Your task to perform on an android device: change the clock display to digital Image 0: 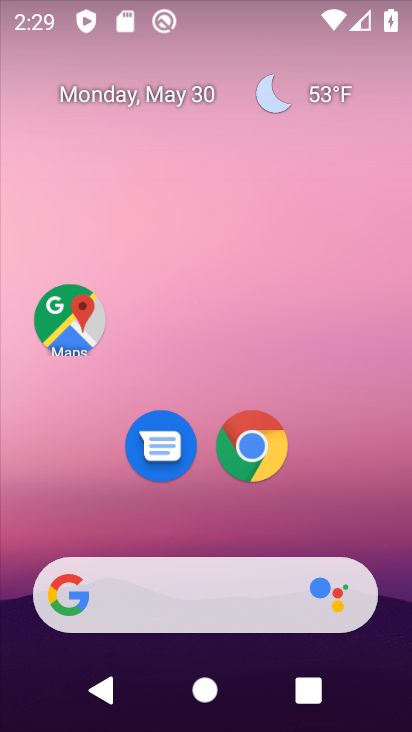
Step 0: drag from (323, 478) to (261, 103)
Your task to perform on an android device: change the clock display to digital Image 1: 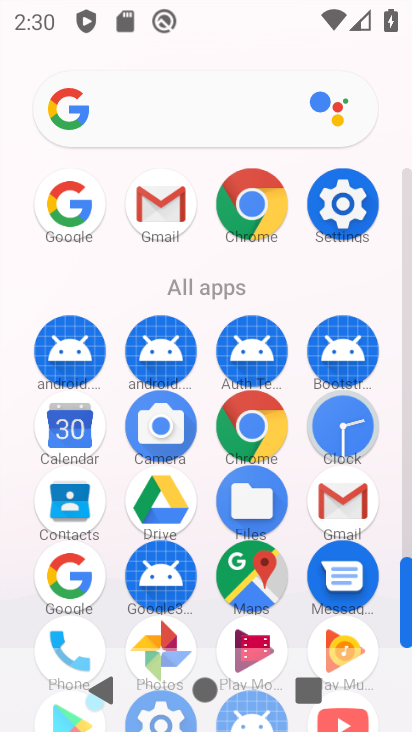
Step 1: click (343, 424)
Your task to perform on an android device: change the clock display to digital Image 2: 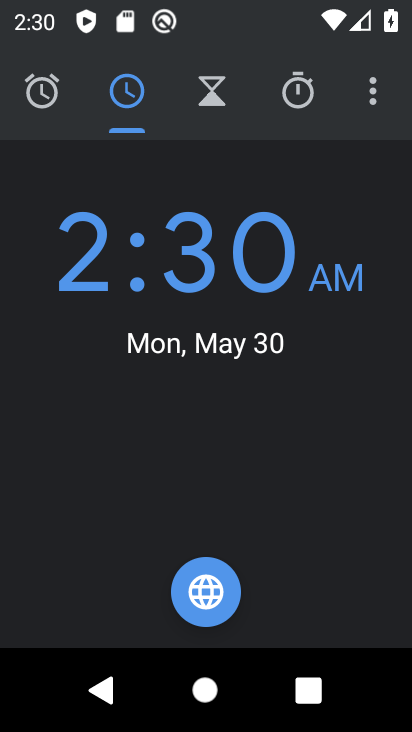
Step 2: click (372, 92)
Your task to perform on an android device: change the clock display to digital Image 3: 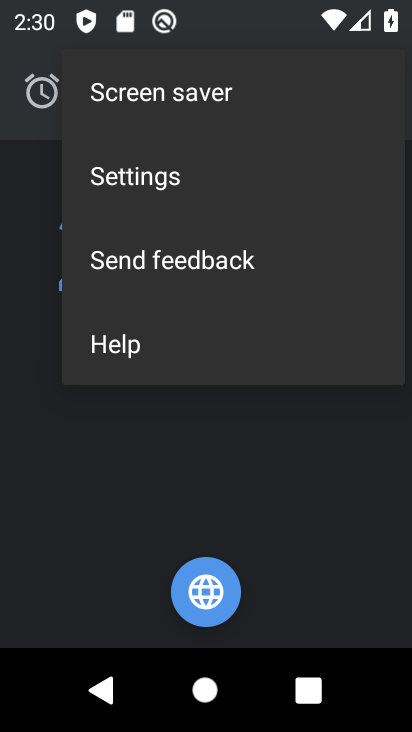
Step 3: click (157, 182)
Your task to perform on an android device: change the clock display to digital Image 4: 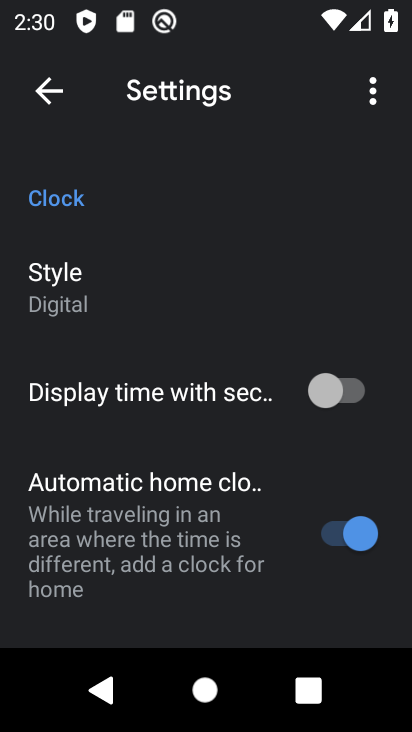
Step 4: click (85, 304)
Your task to perform on an android device: change the clock display to digital Image 5: 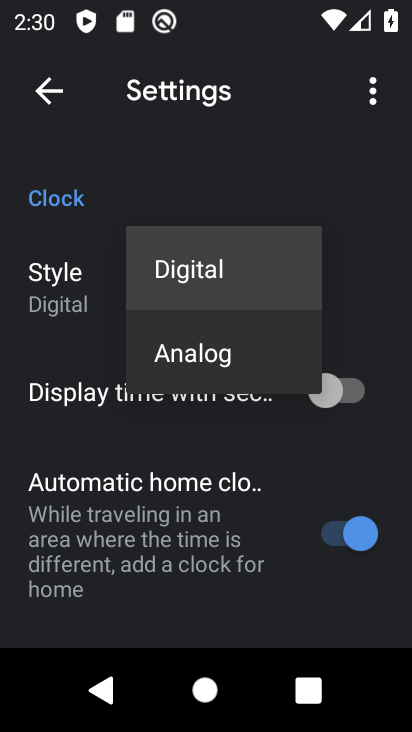
Step 5: click (202, 281)
Your task to perform on an android device: change the clock display to digital Image 6: 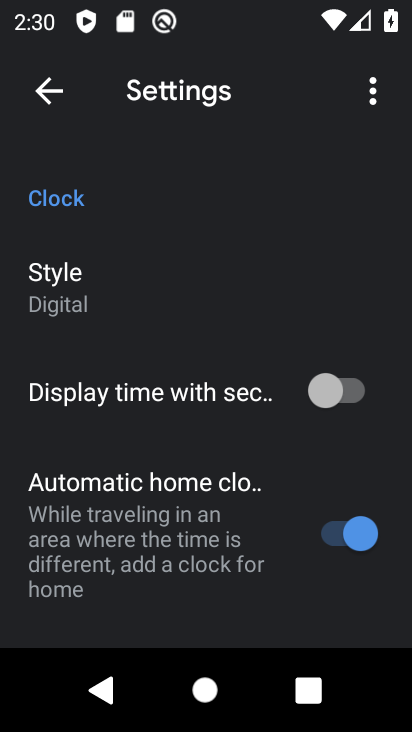
Step 6: task complete